Your task to perform on an android device: turn vacation reply on in the gmail app Image 0: 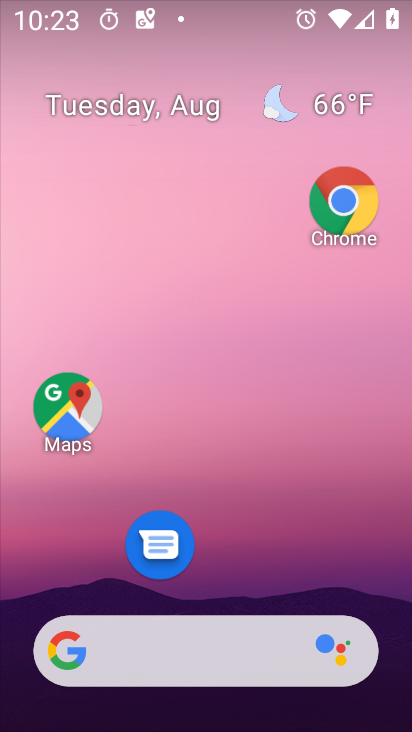
Step 0: drag from (189, 602) to (210, 69)
Your task to perform on an android device: turn vacation reply on in the gmail app Image 1: 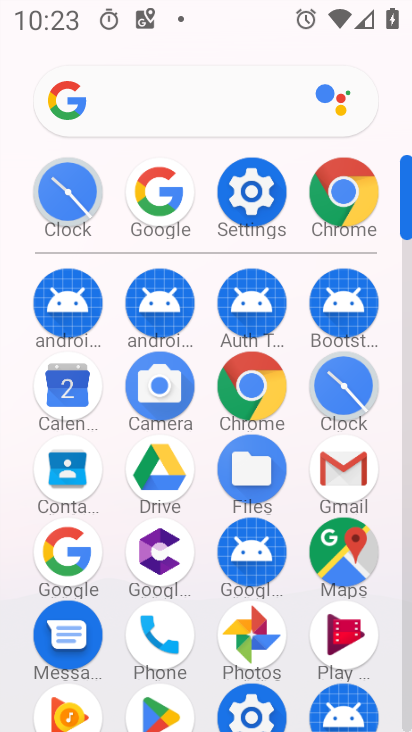
Step 1: click (348, 476)
Your task to perform on an android device: turn vacation reply on in the gmail app Image 2: 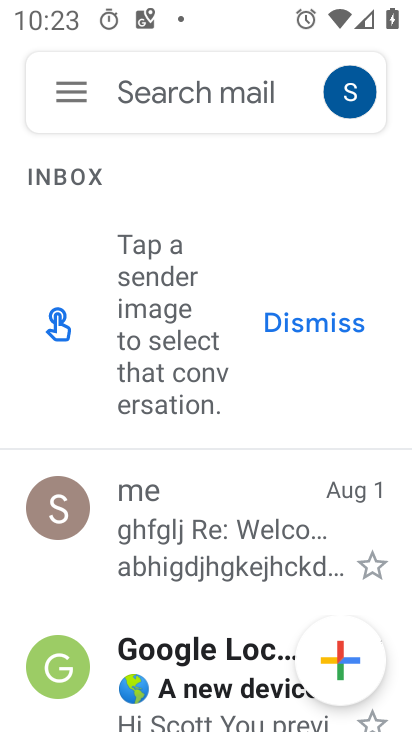
Step 2: click (67, 101)
Your task to perform on an android device: turn vacation reply on in the gmail app Image 3: 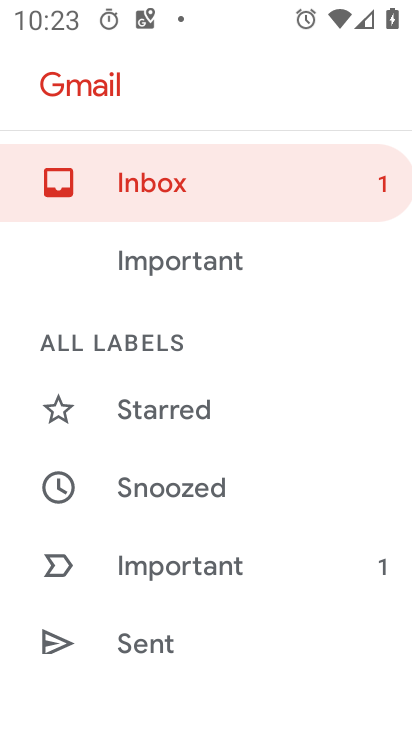
Step 3: drag from (161, 586) to (224, 24)
Your task to perform on an android device: turn vacation reply on in the gmail app Image 4: 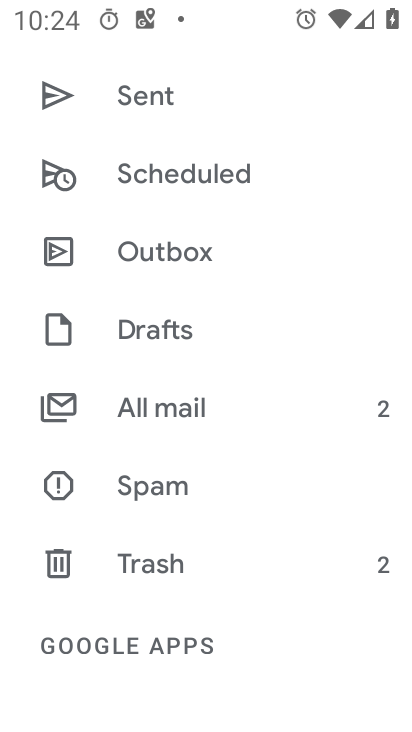
Step 4: drag from (178, 573) to (214, 80)
Your task to perform on an android device: turn vacation reply on in the gmail app Image 5: 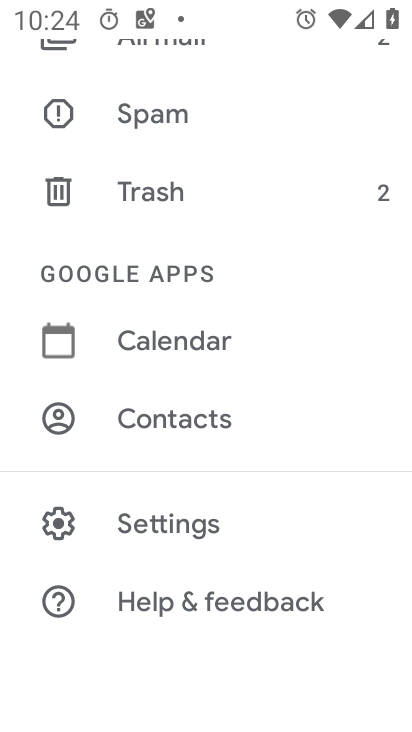
Step 5: click (152, 503)
Your task to perform on an android device: turn vacation reply on in the gmail app Image 6: 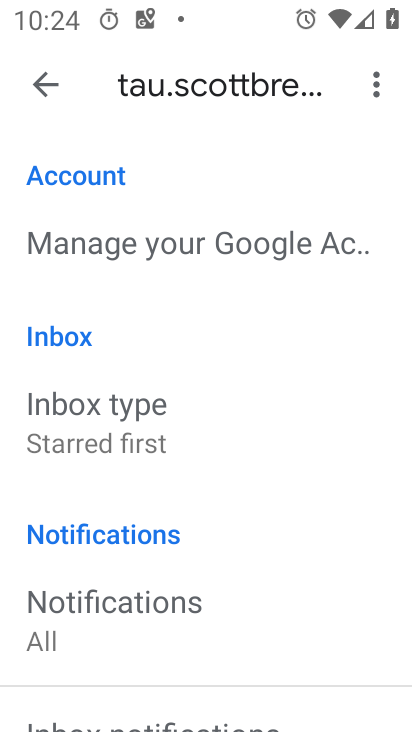
Step 6: drag from (136, 578) to (192, 136)
Your task to perform on an android device: turn vacation reply on in the gmail app Image 7: 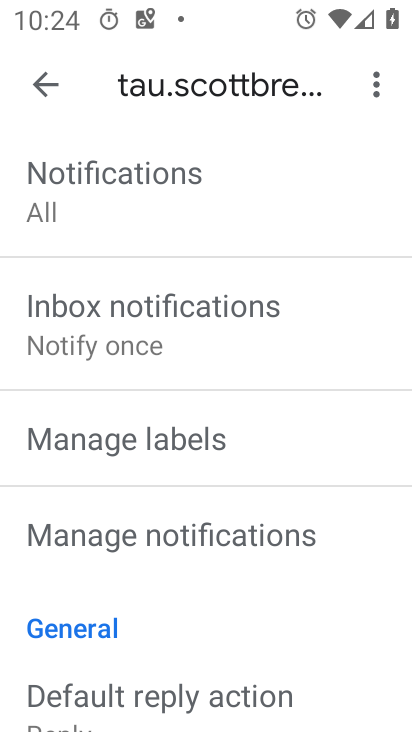
Step 7: drag from (134, 592) to (194, 107)
Your task to perform on an android device: turn vacation reply on in the gmail app Image 8: 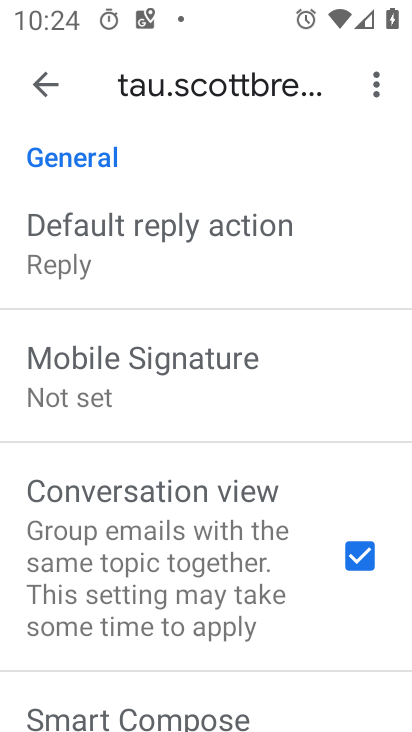
Step 8: drag from (179, 508) to (198, 102)
Your task to perform on an android device: turn vacation reply on in the gmail app Image 9: 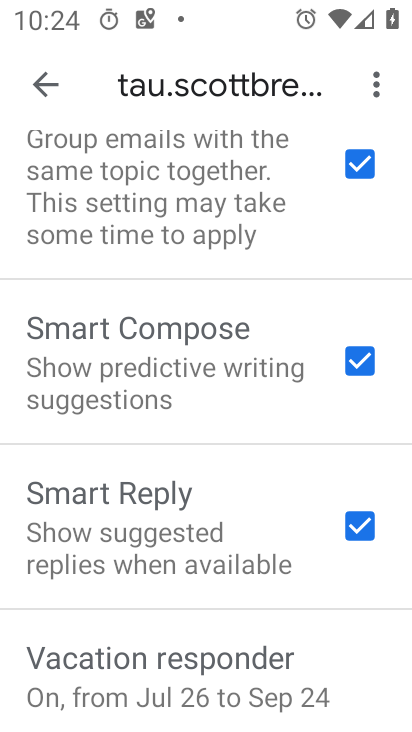
Step 9: click (161, 690)
Your task to perform on an android device: turn vacation reply on in the gmail app Image 10: 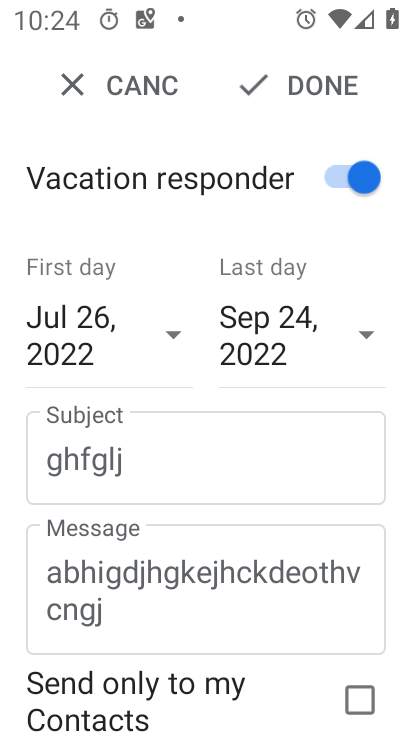
Step 10: task complete